Your task to perform on an android device: Do I have any events tomorrow? Image 0: 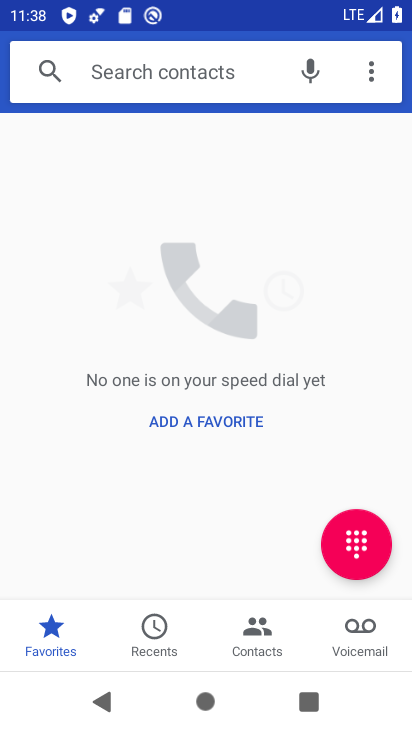
Step 0: press home button
Your task to perform on an android device: Do I have any events tomorrow? Image 1: 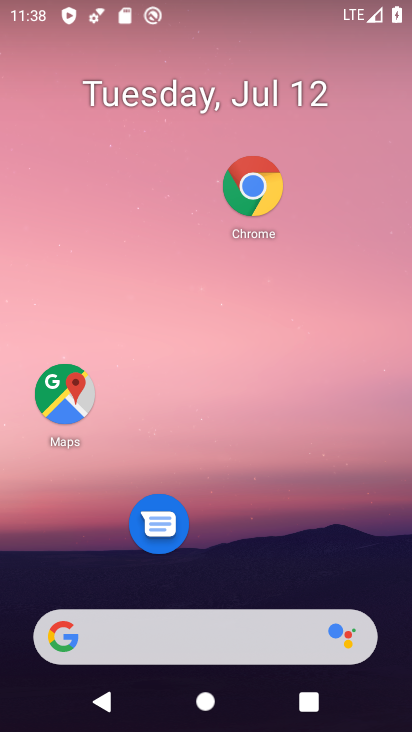
Step 1: drag from (205, 569) to (156, 4)
Your task to perform on an android device: Do I have any events tomorrow? Image 2: 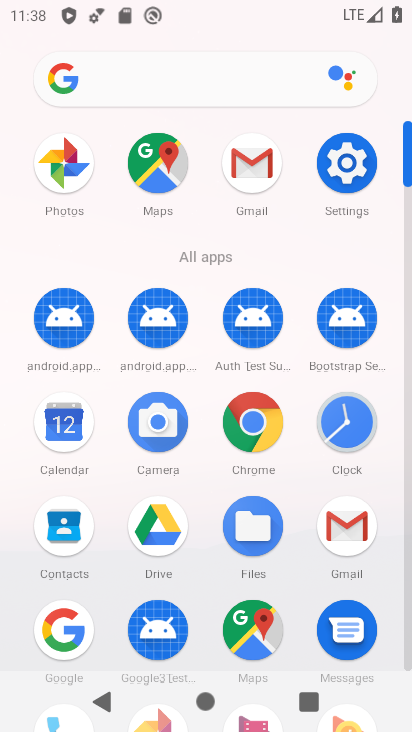
Step 2: click (64, 436)
Your task to perform on an android device: Do I have any events tomorrow? Image 3: 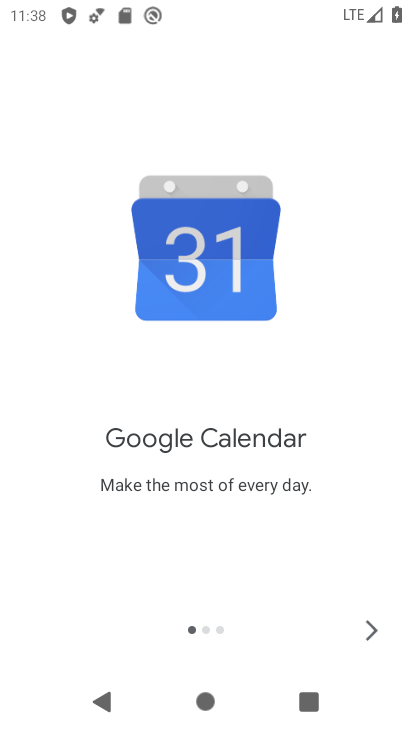
Step 3: click (367, 628)
Your task to perform on an android device: Do I have any events tomorrow? Image 4: 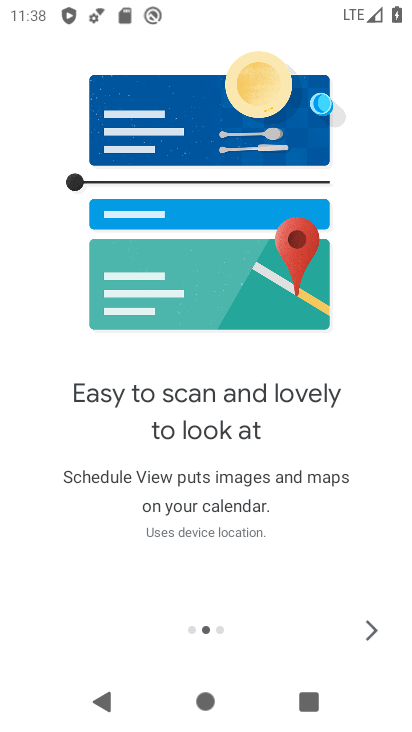
Step 4: click (367, 628)
Your task to perform on an android device: Do I have any events tomorrow? Image 5: 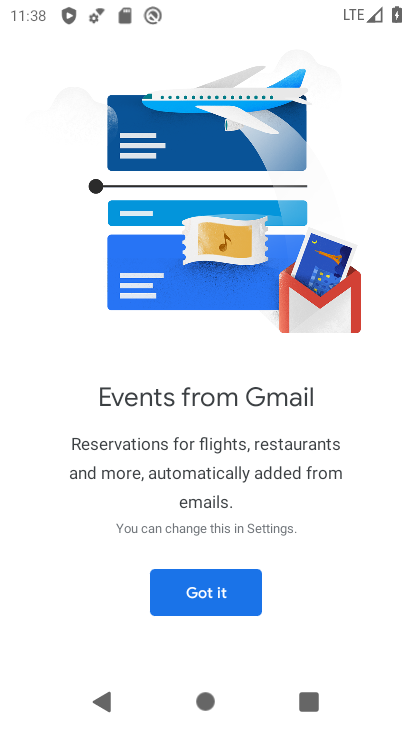
Step 5: click (367, 628)
Your task to perform on an android device: Do I have any events tomorrow? Image 6: 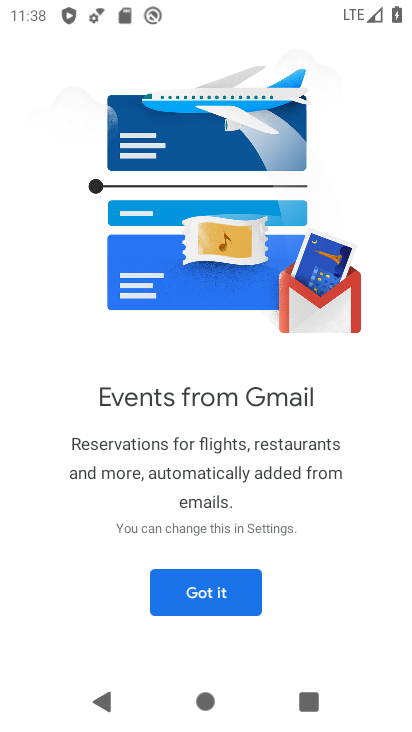
Step 6: click (217, 609)
Your task to perform on an android device: Do I have any events tomorrow? Image 7: 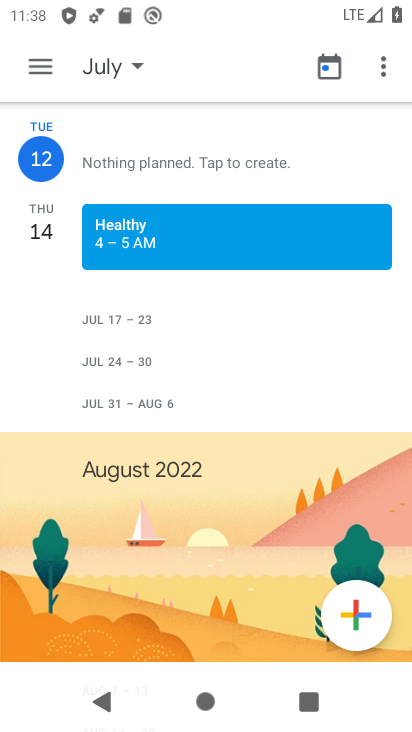
Step 7: click (41, 56)
Your task to perform on an android device: Do I have any events tomorrow? Image 8: 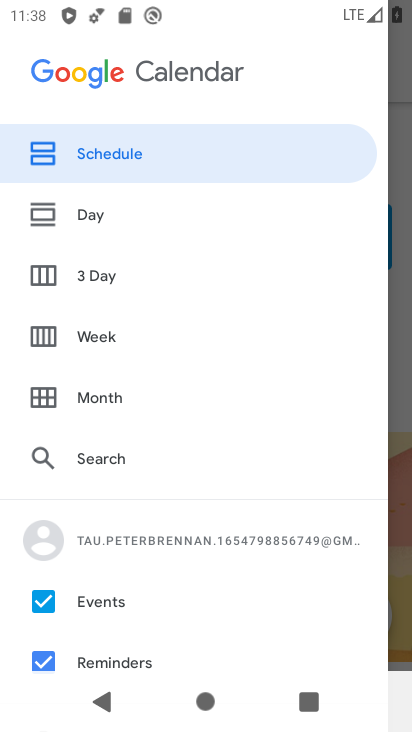
Step 8: click (85, 340)
Your task to perform on an android device: Do I have any events tomorrow? Image 9: 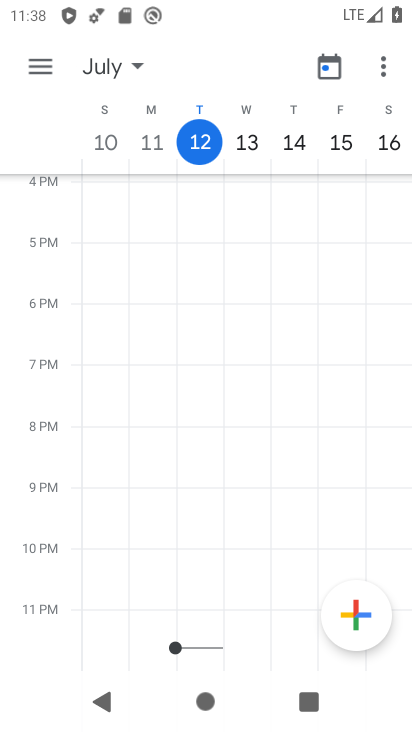
Step 9: click (260, 148)
Your task to perform on an android device: Do I have any events tomorrow? Image 10: 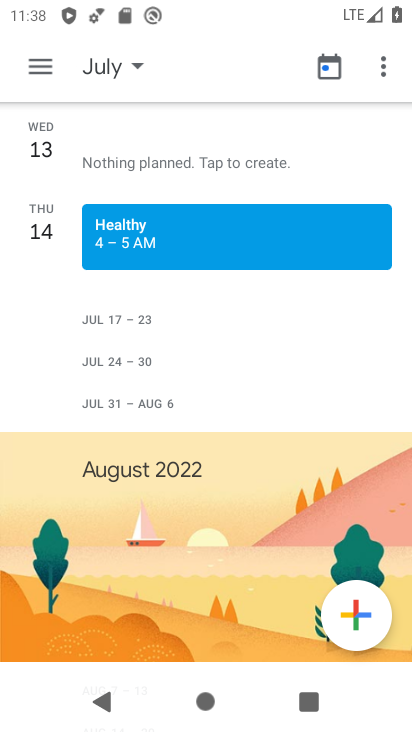
Step 10: task complete